Your task to perform on an android device: turn on sleep mode Image 0: 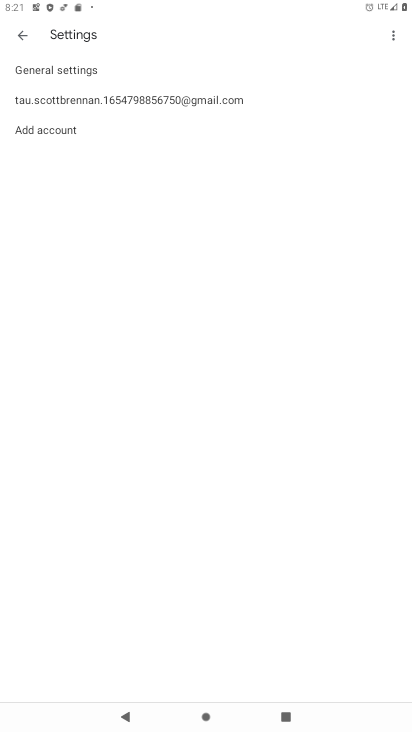
Step 0: press home button
Your task to perform on an android device: turn on sleep mode Image 1: 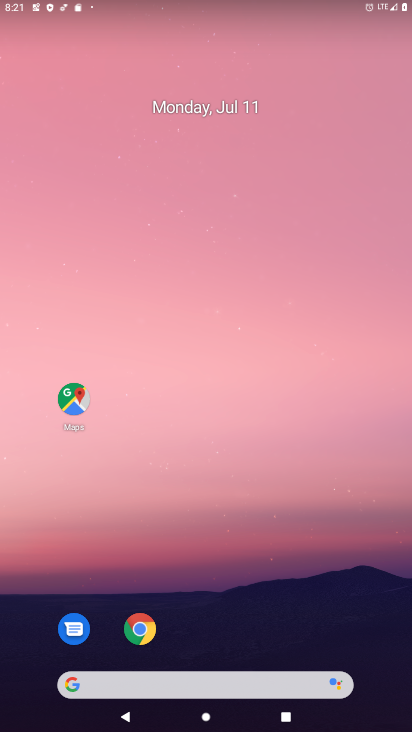
Step 1: drag from (227, 627) to (278, 86)
Your task to perform on an android device: turn on sleep mode Image 2: 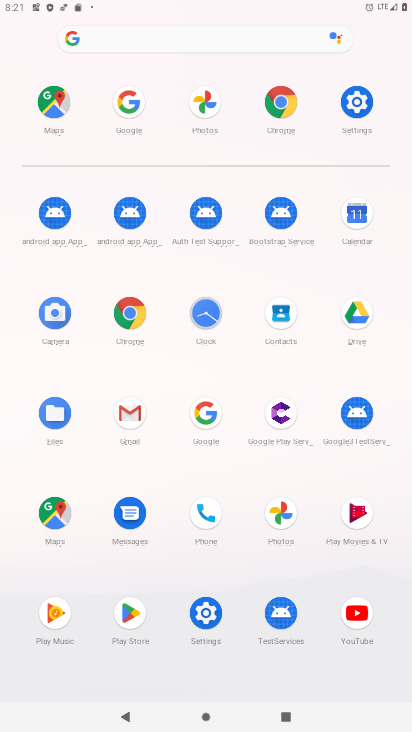
Step 2: click (360, 103)
Your task to perform on an android device: turn on sleep mode Image 3: 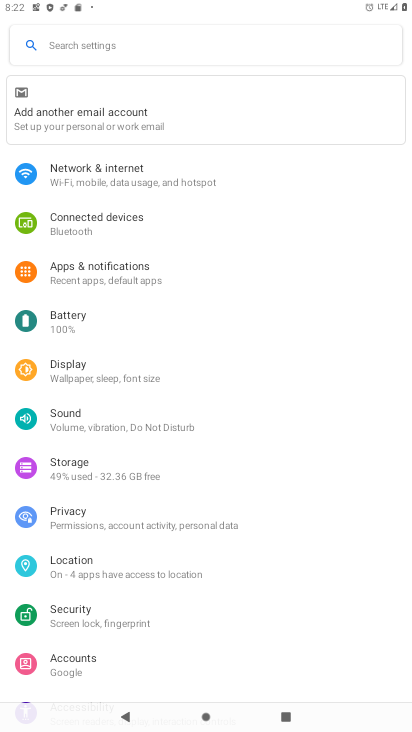
Step 3: click (114, 364)
Your task to perform on an android device: turn on sleep mode Image 4: 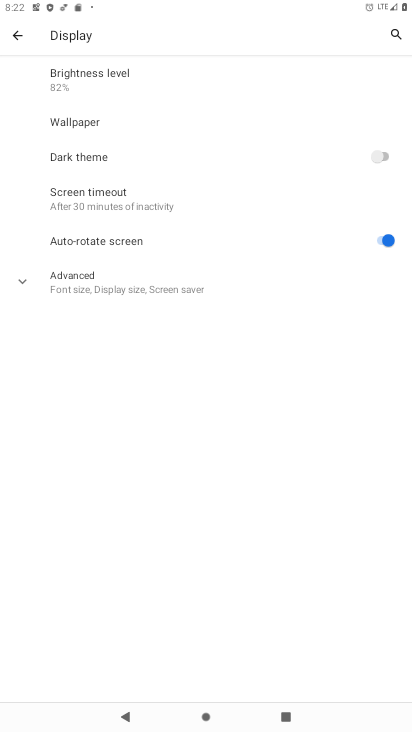
Step 4: click (115, 195)
Your task to perform on an android device: turn on sleep mode Image 5: 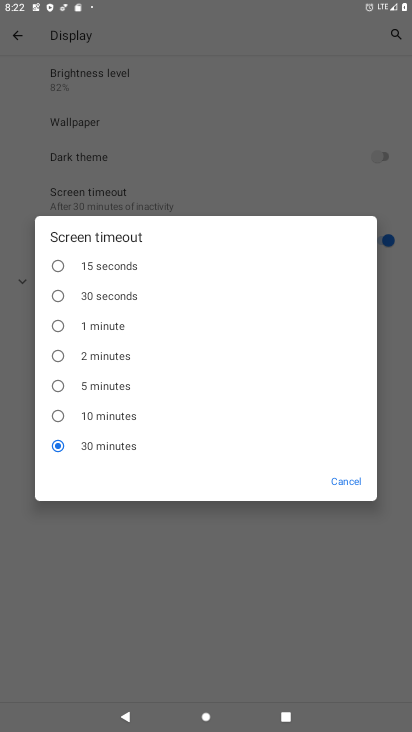
Step 5: task complete